Your task to perform on an android device: snooze an email in the gmail app Image 0: 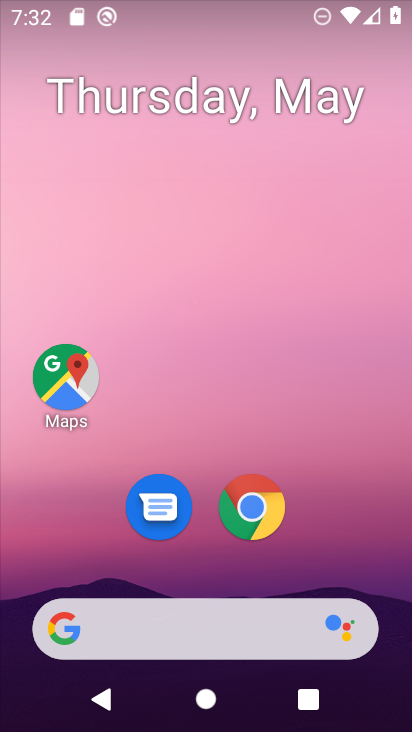
Step 0: drag from (360, 463) to (370, 66)
Your task to perform on an android device: snooze an email in the gmail app Image 1: 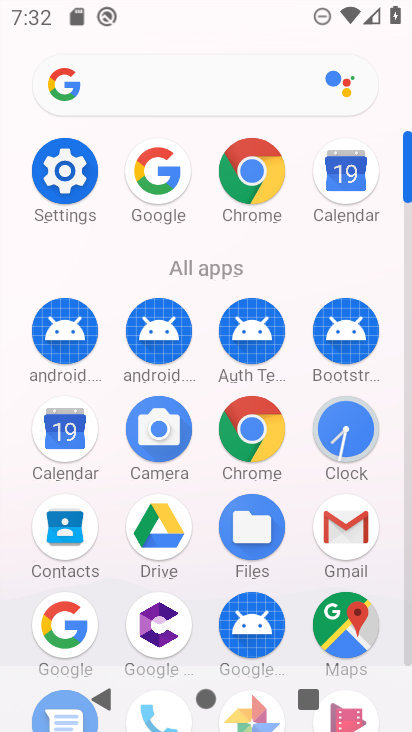
Step 1: click (352, 533)
Your task to perform on an android device: snooze an email in the gmail app Image 2: 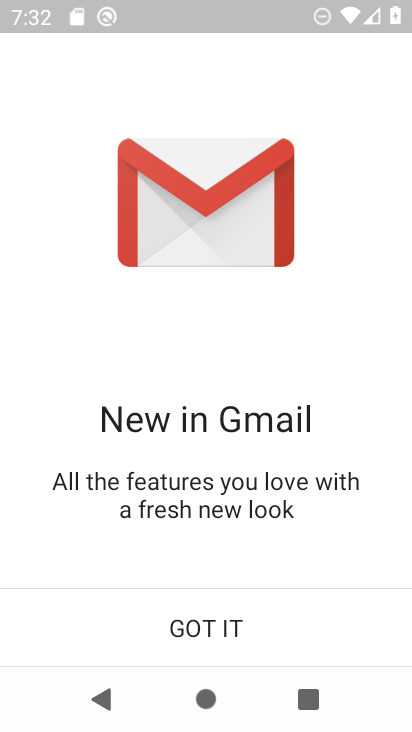
Step 2: click (190, 623)
Your task to perform on an android device: snooze an email in the gmail app Image 3: 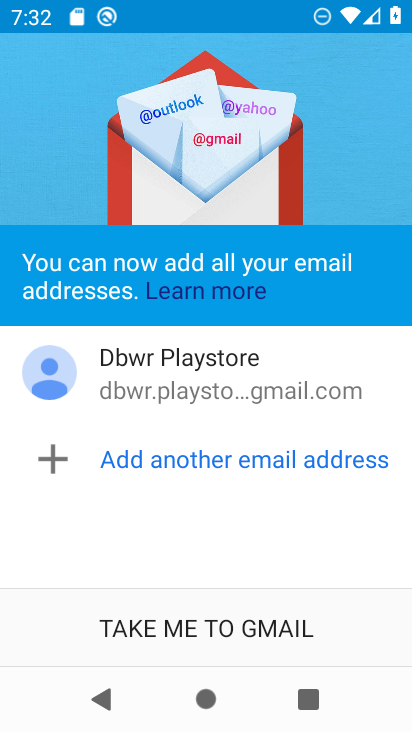
Step 3: click (226, 628)
Your task to perform on an android device: snooze an email in the gmail app Image 4: 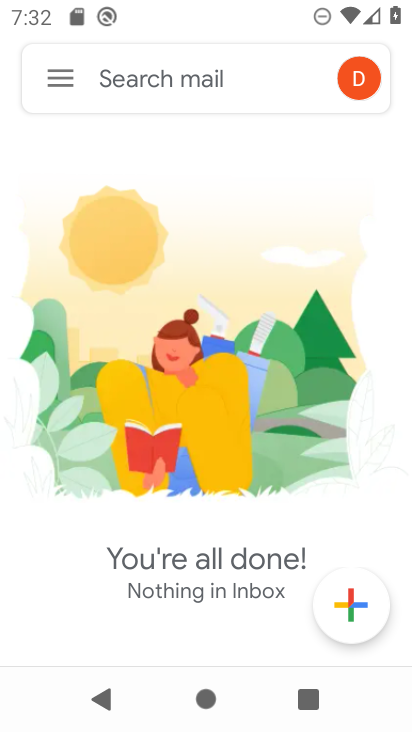
Step 4: click (68, 67)
Your task to perform on an android device: snooze an email in the gmail app Image 5: 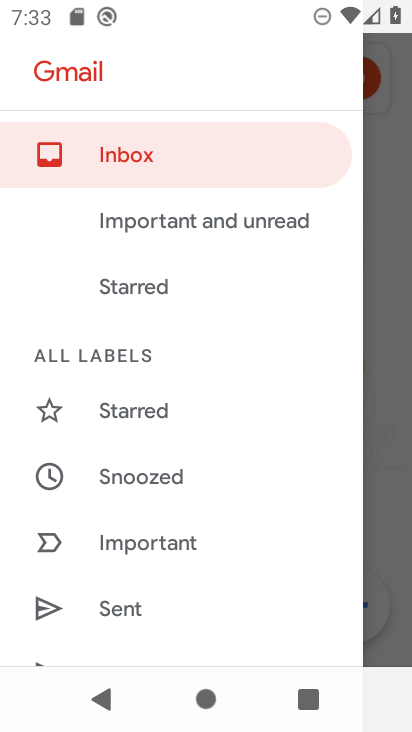
Step 5: click (83, 168)
Your task to perform on an android device: snooze an email in the gmail app Image 6: 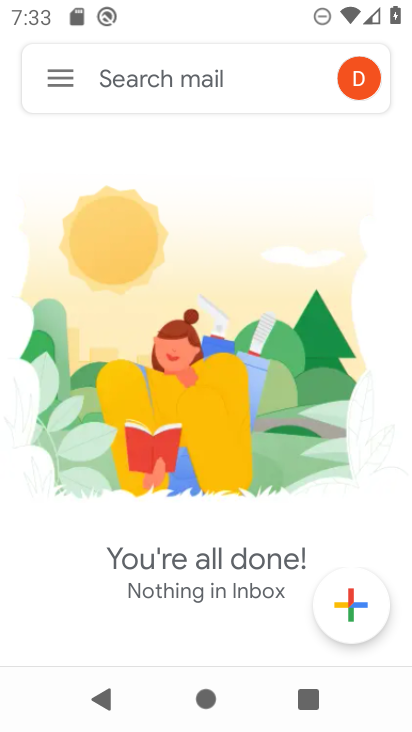
Step 6: task complete